Your task to perform on an android device: Open ESPN.com Image 0: 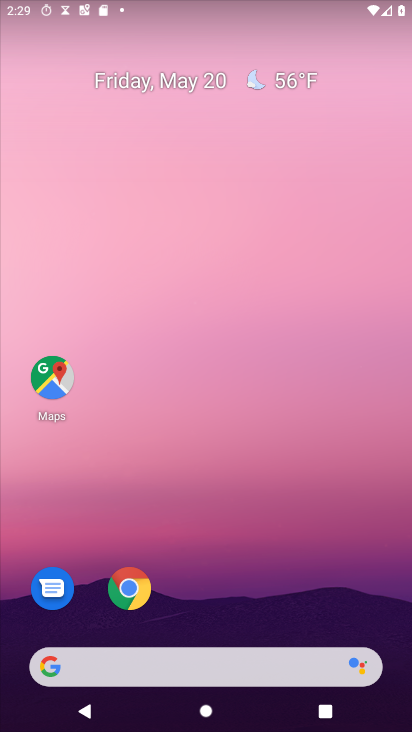
Step 0: click (130, 581)
Your task to perform on an android device: Open ESPN.com Image 1: 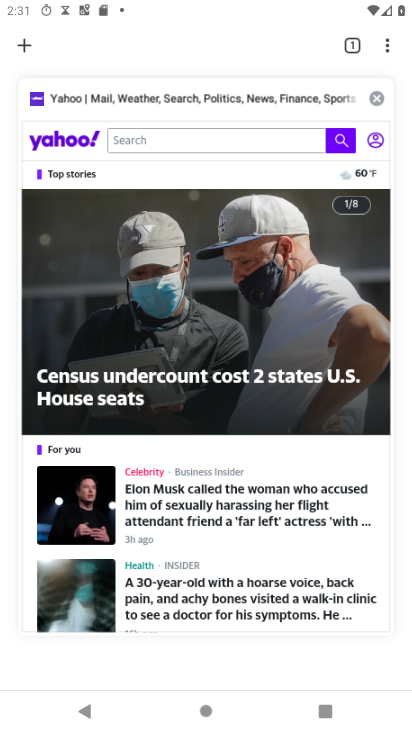
Step 1: click (373, 94)
Your task to perform on an android device: Open ESPN.com Image 2: 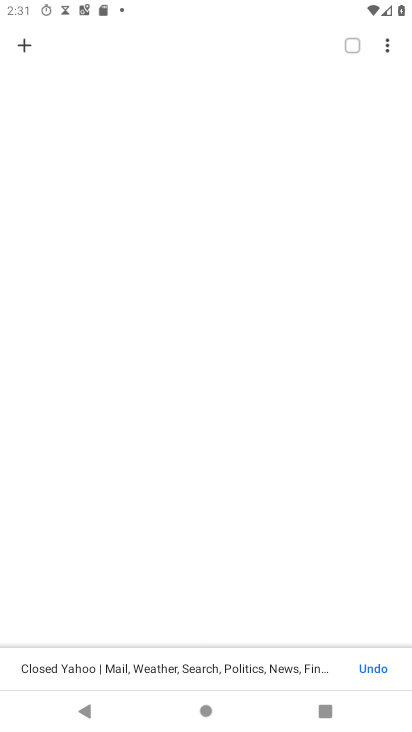
Step 2: click (27, 45)
Your task to perform on an android device: Open ESPN.com Image 3: 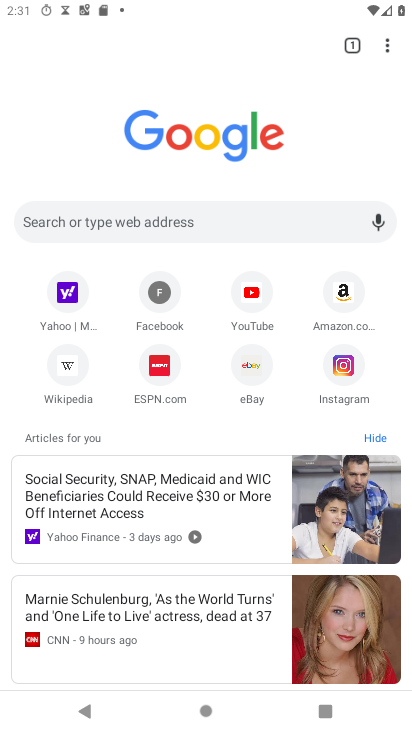
Step 3: click (160, 366)
Your task to perform on an android device: Open ESPN.com Image 4: 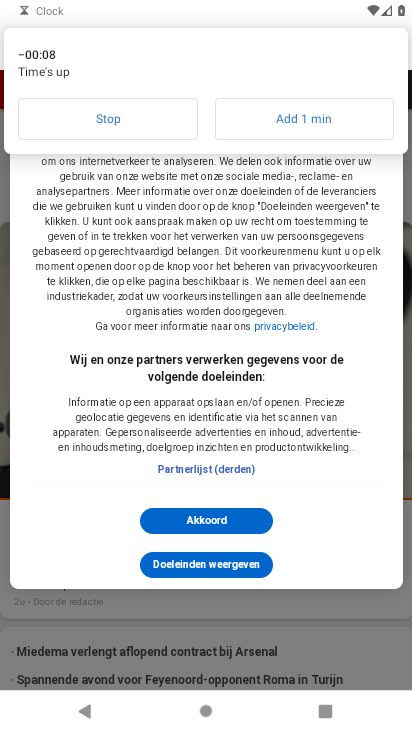
Step 4: press home button
Your task to perform on an android device: Open ESPN.com Image 5: 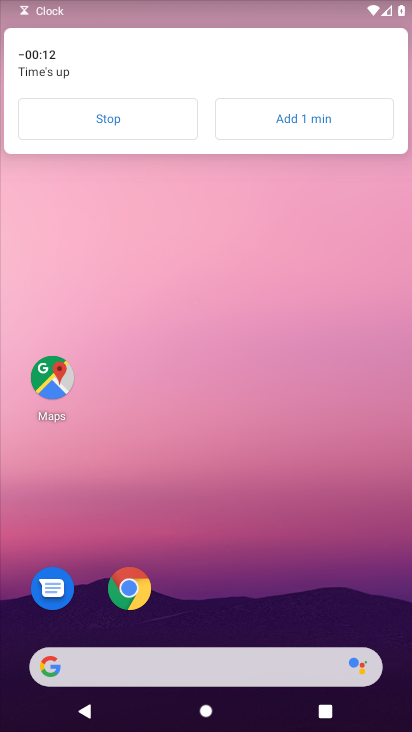
Step 5: click (137, 581)
Your task to perform on an android device: Open ESPN.com Image 6: 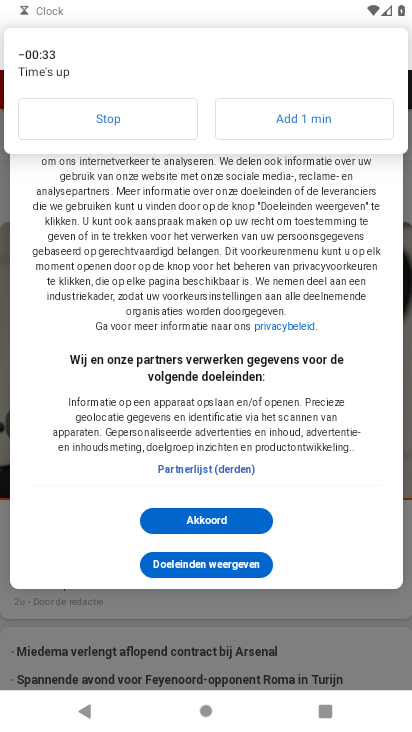
Step 6: click (217, 527)
Your task to perform on an android device: Open ESPN.com Image 7: 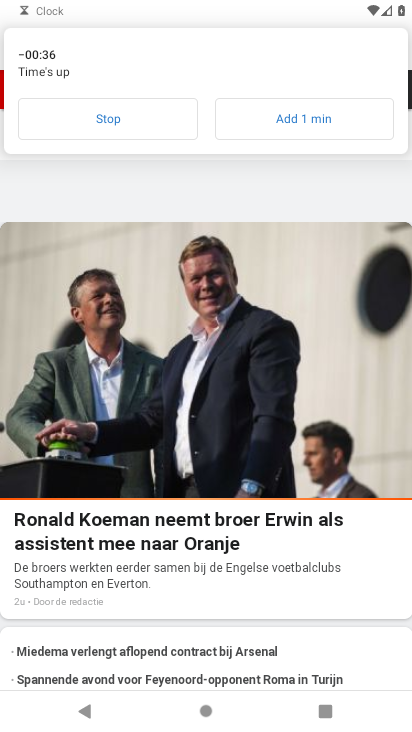
Step 7: click (116, 127)
Your task to perform on an android device: Open ESPN.com Image 8: 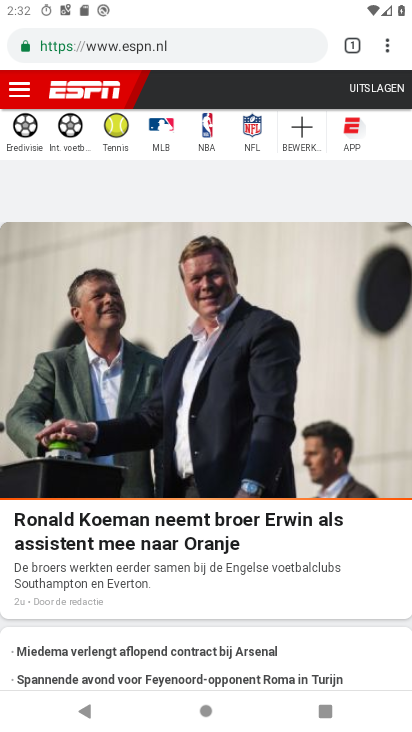
Step 8: task complete